Your task to perform on an android device: see tabs open on other devices in the chrome app Image 0: 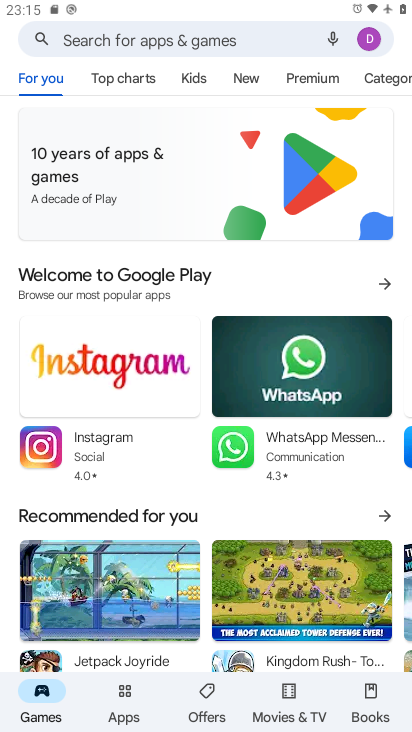
Step 0: press home button
Your task to perform on an android device: see tabs open on other devices in the chrome app Image 1: 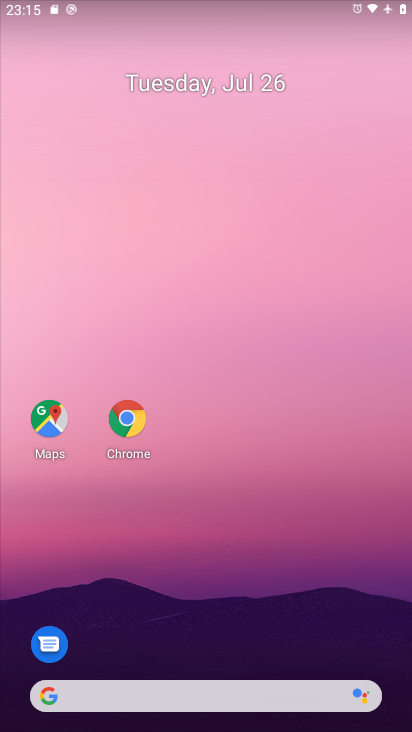
Step 1: click (128, 430)
Your task to perform on an android device: see tabs open on other devices in the chrome app Image 2: 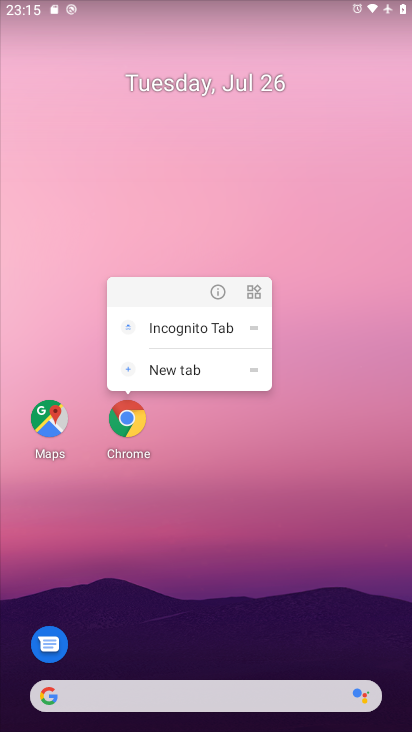
Step 2: click (128, 430)
Your task to perform on an android device: see tabs open on other devices in the chrome app Image 3: 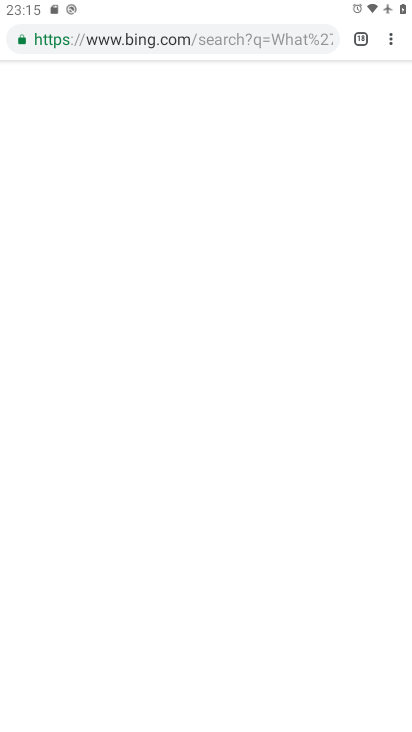
Step 3: click (398, 39)
Your task to perform on an android device: see tabs open on other devices in the chrome app Image 4: 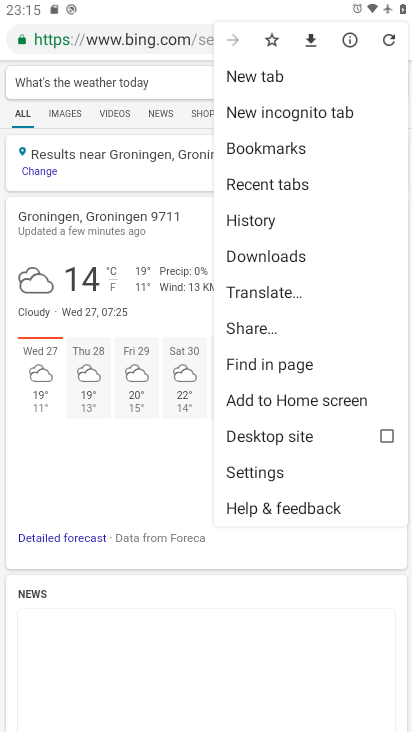
Step 4: click (273, 210)
Your task to perform on an android device: see tabs open on other devices in the chrome app Image 5: 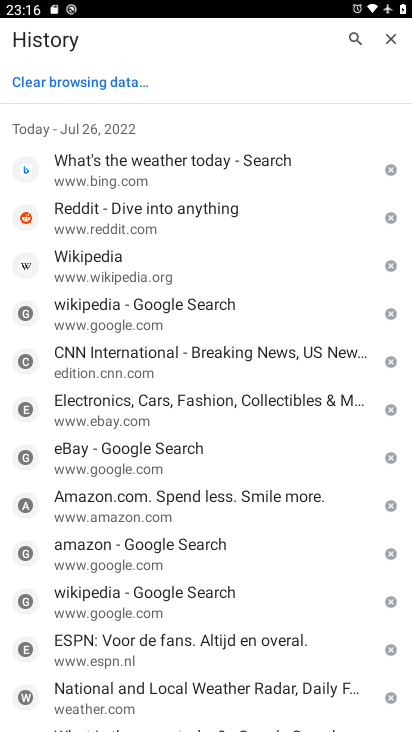
Step 5: task complete